Your task to perform on an android device: Go to Yahoo.com Image 0: 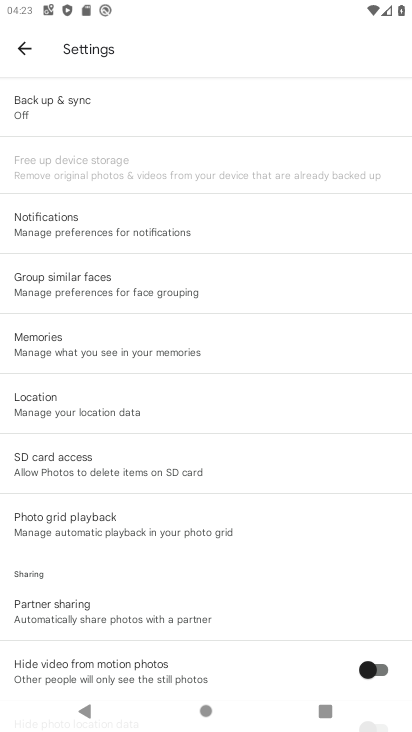
Step 0: press home button
Your task to perform on an android device: Go to Yahoo.com Image 1: 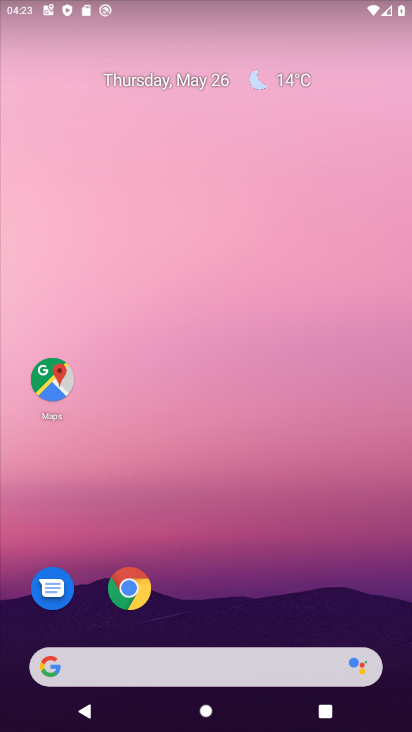
Step 1: click (206, 667)
Your task to perform on an android device: Go to Yahoo.com Image 2: 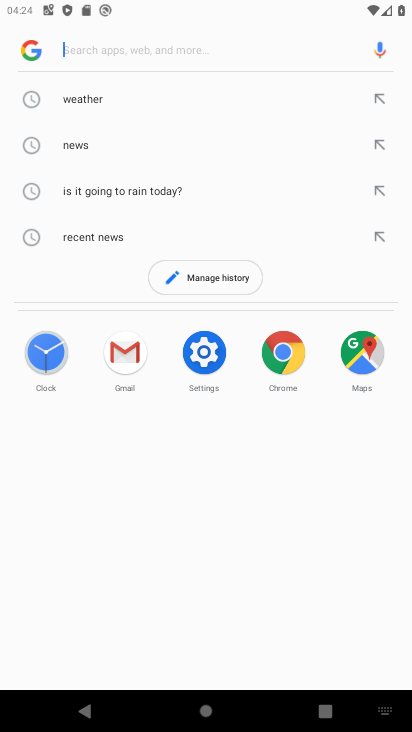
Step 2: type "yahoo.com"
Your task to perform on an android device: Go to Yahoo.com Image 3: 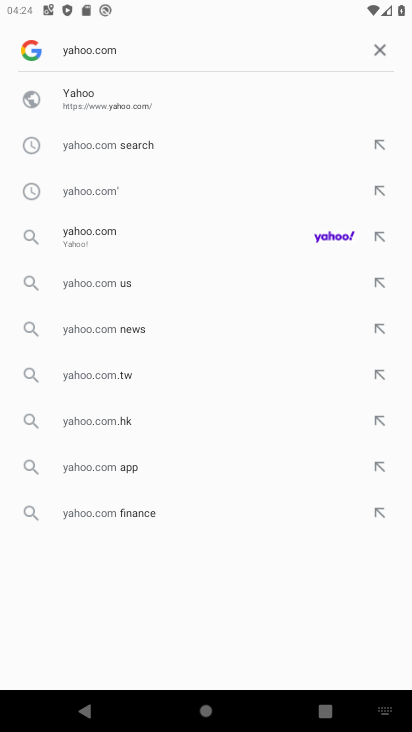
Step 3: click (104, 99)
Your task to perform on an android device: Go to Yahoo.com Image 4: 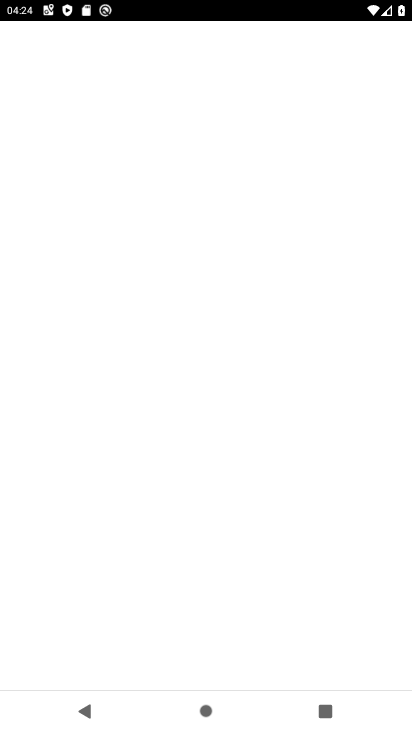
Step 4: task complete